Your task to perform on an android device: change notification settings in the gmail app Image 0: 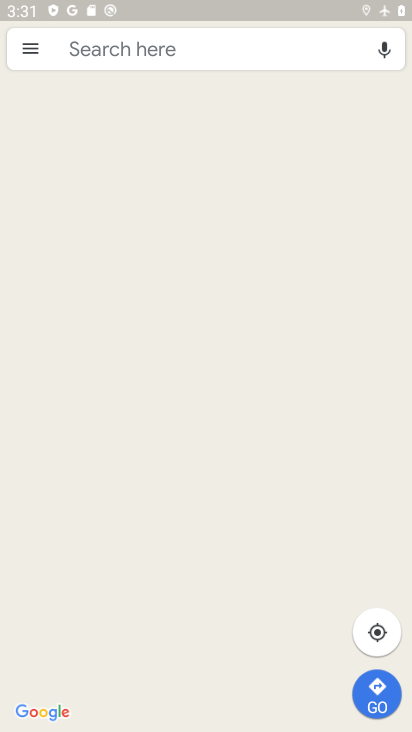
Step 0: press back button
Your task to perform on an android device: change notification settings in the gmail app Image 1: 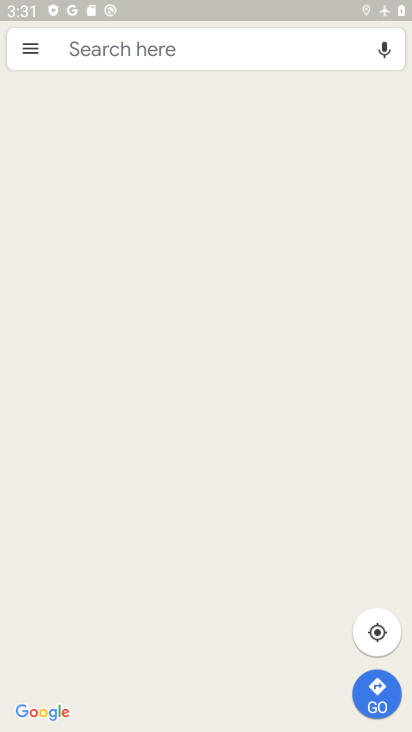
Step 1: press back button
Your task to perform on an android device: change notification settings in the gmail app Image 2: 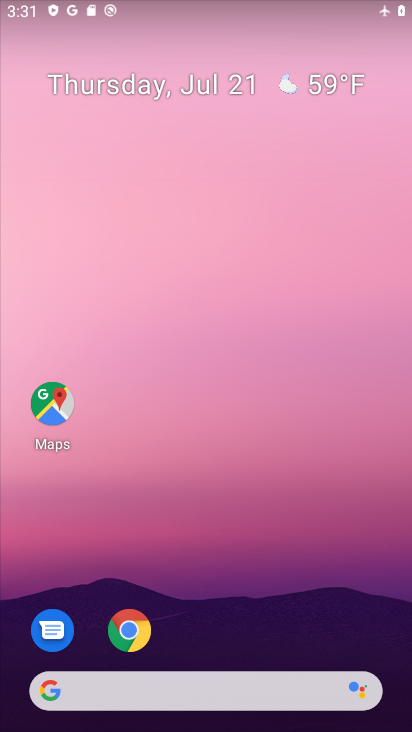
Step 2: drag from (214, 545) to (262, 98)
Your task to perform on an android device: change notification settings in the gmail app Image 3: 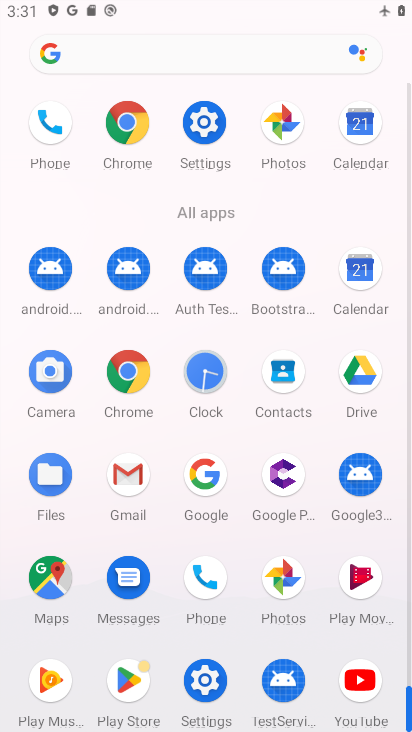
Step 3: click (121, 470)
Your task to perform on an android device: change notification settings in the gmail app Image 4: 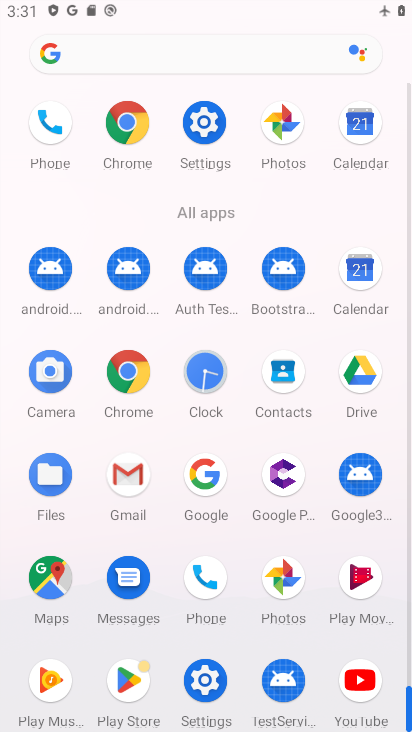
Step 4: click (121, 470)
Your task to perform on an android device: change notification settings in the gmail app Image 5: 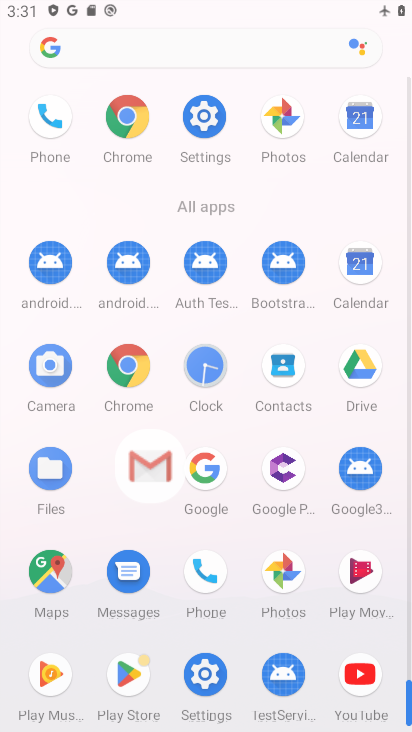
Step 5: click (123, 470)
Your task to perform on an android device: change notification settings in the gmail app Image 6: 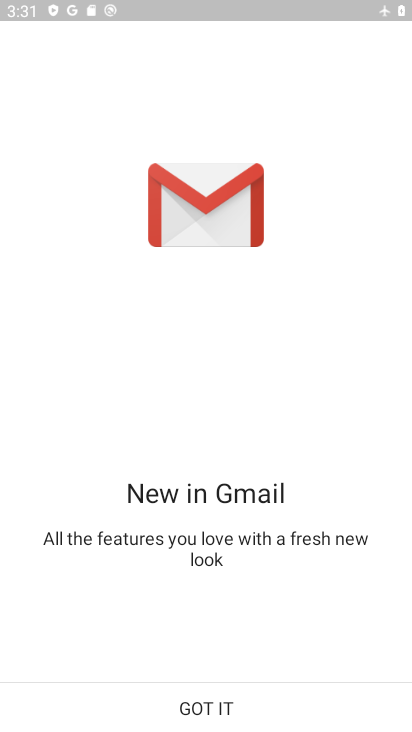
Step 6: click (211, 709)
Your task to perform on an android device: change notification settings in the gmail app Image 7: 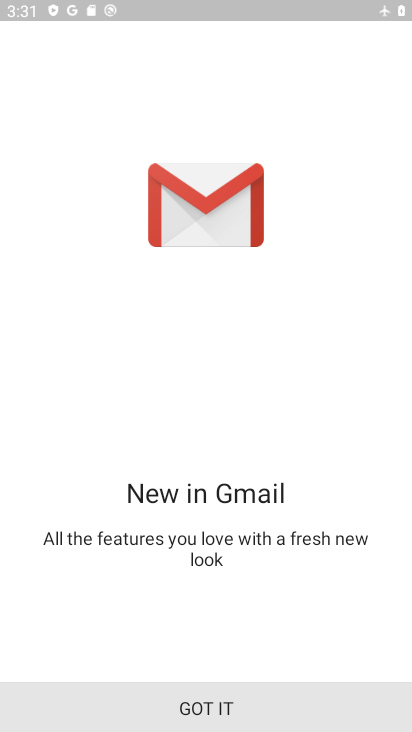
Step 7: click (233, 690)
Your task to perform on an android device: change notification settings in the gmail app Image 8: 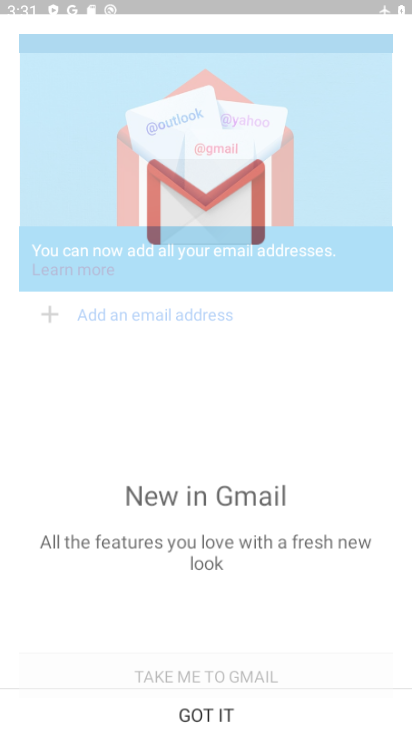
Step 8: click (235, 691)
Your task to perform on an android device: change notification settings in the gmail app Image 9: 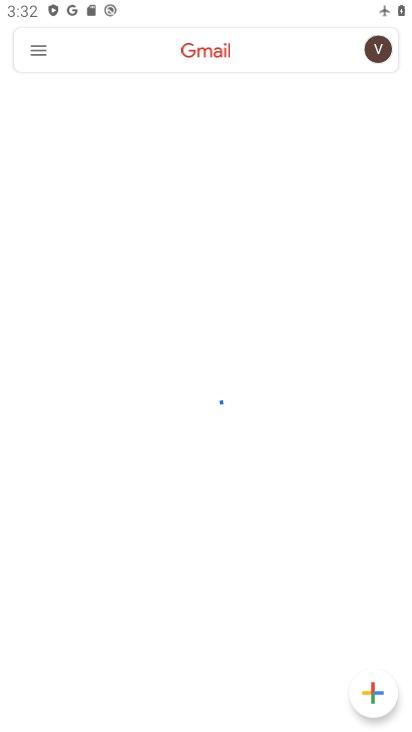
Step 9: press back button
Your task to perform on an android device: change notification settings in the gmail app Image 10: 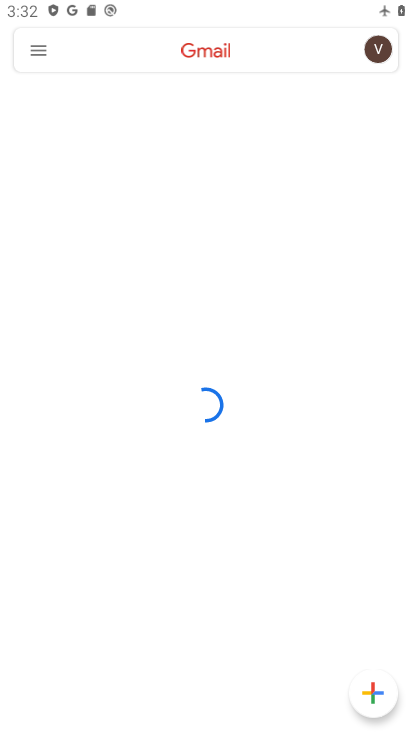
Step 10: press back button
Your task to perform on an android device: change notification settings in the gmail app Image 11: 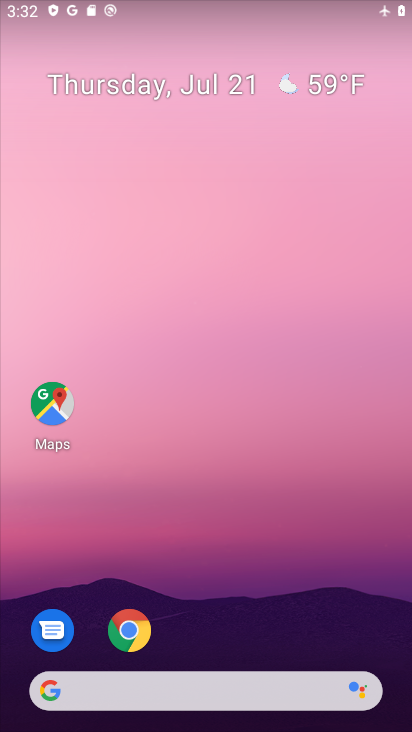
Step 11: drag from (232, 338) to (202, 136)
Your task to perform on an android device: change notification settings in the gmail app Image 12: 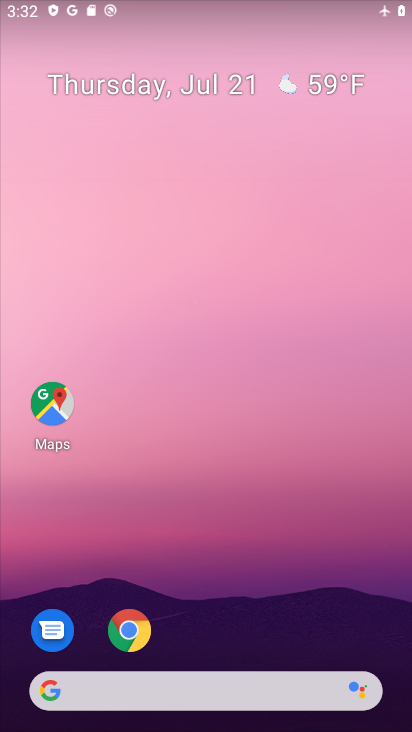
Step 12: drag from (203, 605) to (199, 305)
Your task to perform on an android device: change notification settings in the gmail app Image 13: 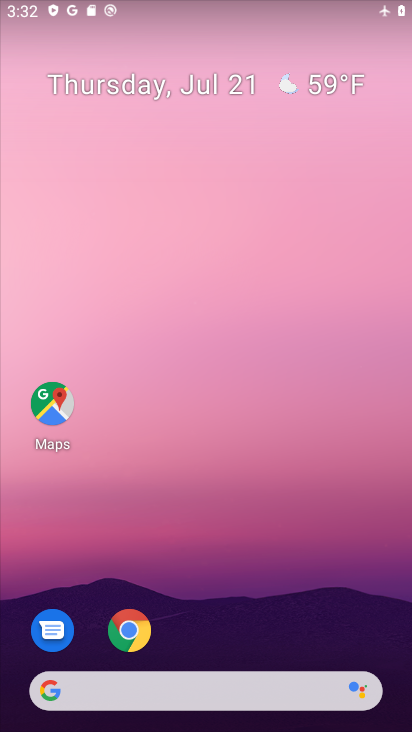
Step 13: drag from (176, 417) to (146, 80)
Your task to perform on an android device: change notification settings in the gmail app Image 14: 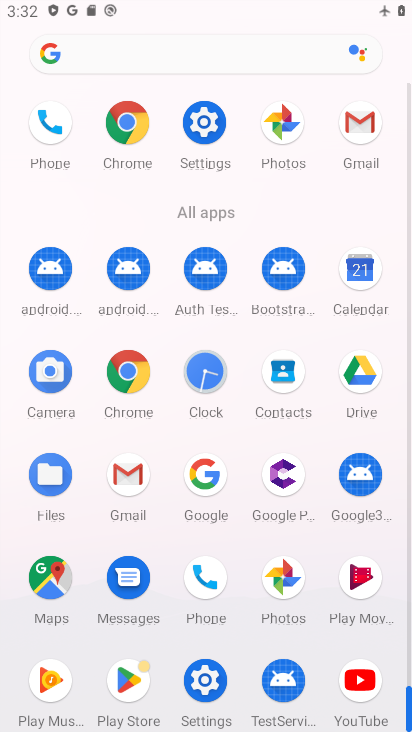
Step 14: click (350, 121)
Your task to perform on an android device: change notification settings in the gmail app Image 15: 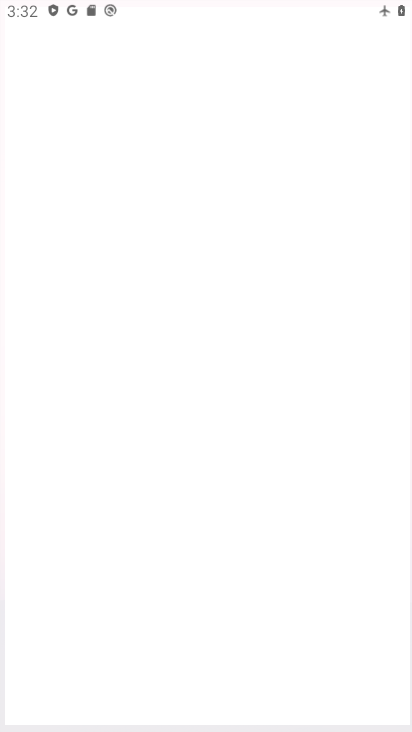
Step 15: click (353, 119)
Your task to perform on an android device: change notification settings in the gmail app Image 16: 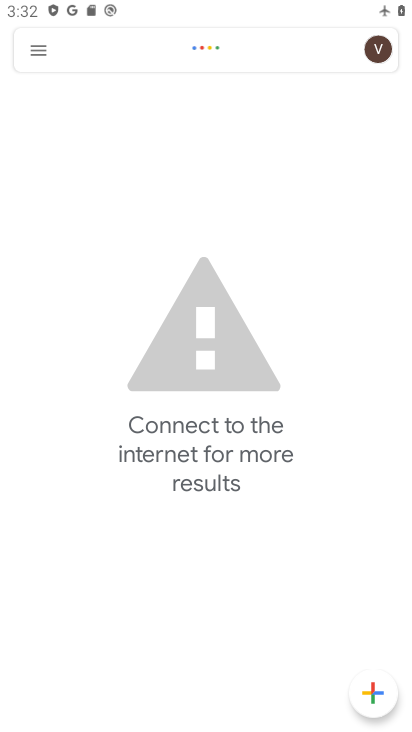
Step 16: drag from (33, 40) to (63, 467)
Your task to perform on an android device: change notification settings in the gmail app Image 17: 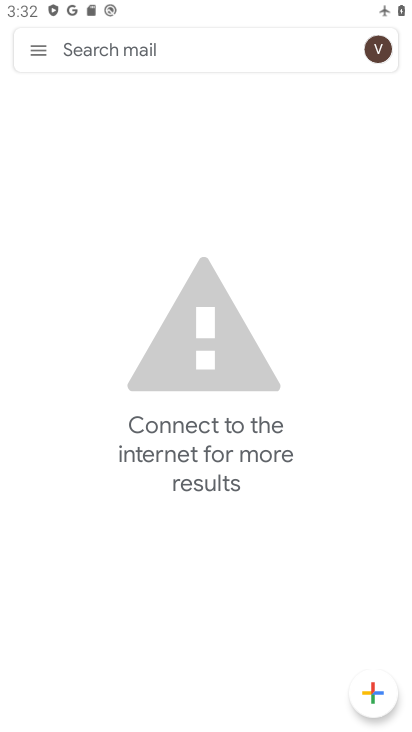
Step 17: click (41, 50)
Your task to perform on an android device: change notification settings in the gmail app Image 18: 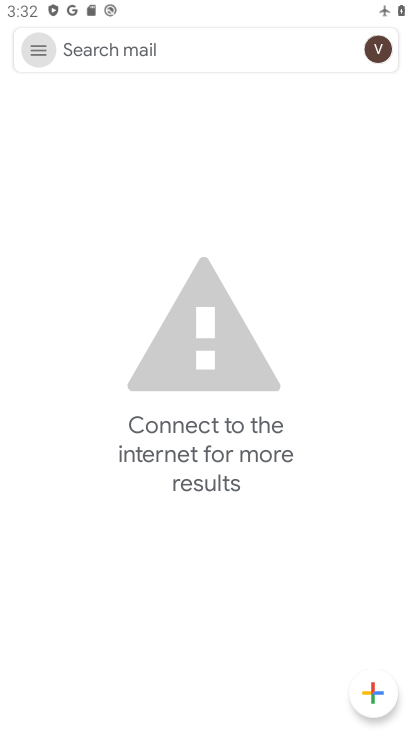
Step 18: click (42, 48)
Your task to perform on an android device: change notification settings in the gmail app Image 19: 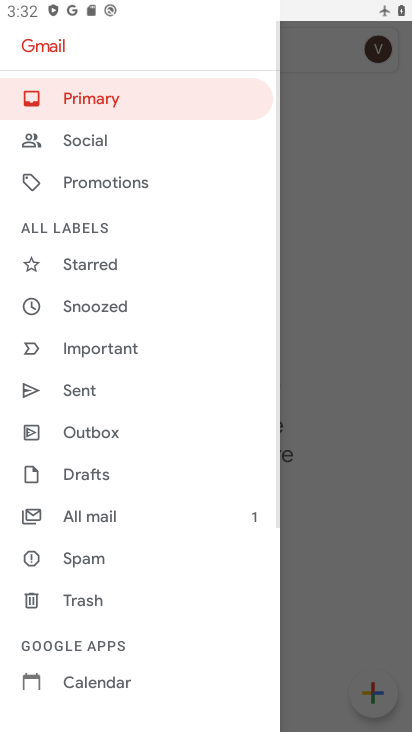
Step 19: drag from (103, 653) to (100, 264)
Your task to perform on an android device: change notification settings in the gmail app Image 20: 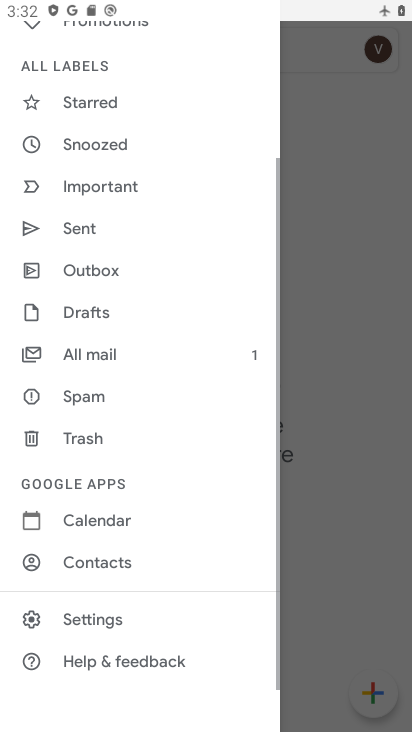
Step 20: click (91, 623)
Your task to perform on an android device: change notification settings in the gmail app Image 21: 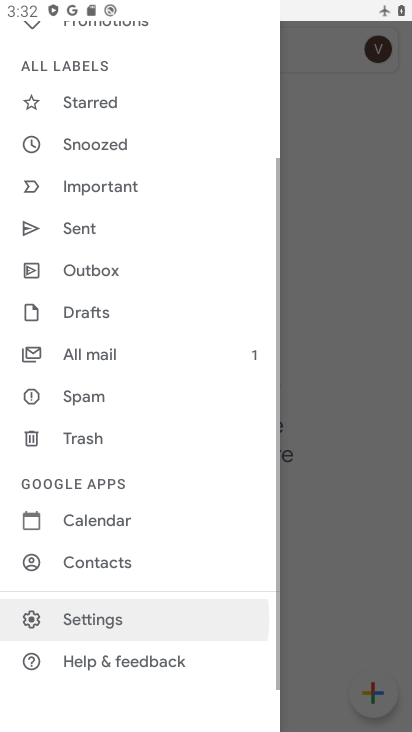
Step 21: click (90, 622)
Your task to perform on an android device: change notification settings in the gmail app Image 22: 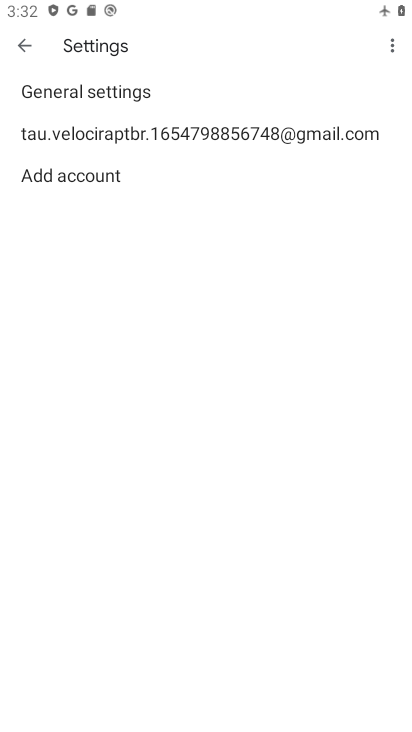
Step 22: click (102, 127)
Your task to perform on an android device: change notification settings in the gmail app Image 23: 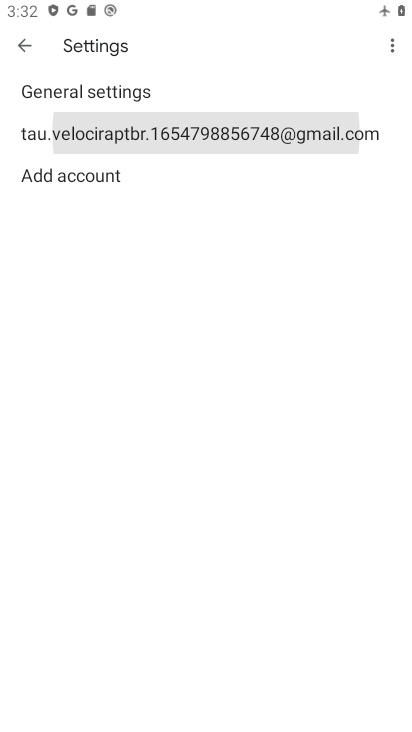
Step 23: click (101, 126)
Your task to perform on an android device: change notification settings in the gmail app Image 24: 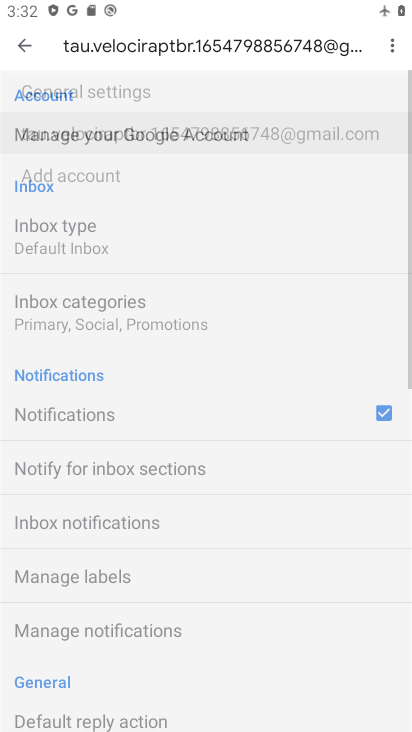
Step 24: click (101, 126)
Your task to perform on an android device: change notification settings in the gmail app Image 25: 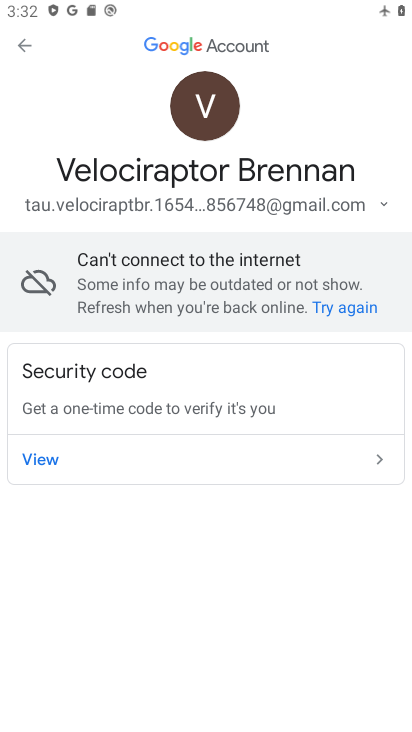
Step 25: task complete